Your task to perform on an android device: install app "Booking.com: Hotels and more" Image 0: 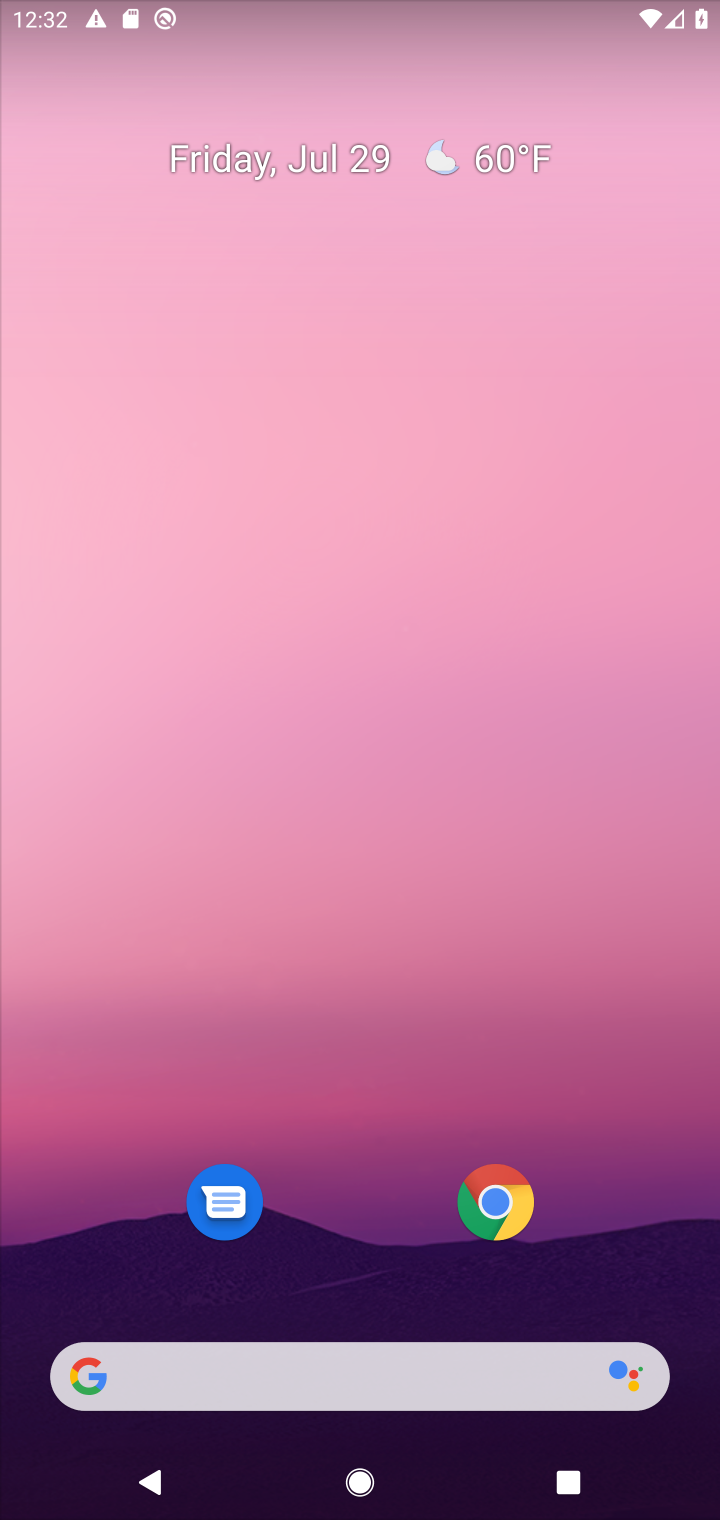
Step 0: click (346, 1378)
Your task to perform on an android device: install app "Booking.com: Hotels and more" Image 1: 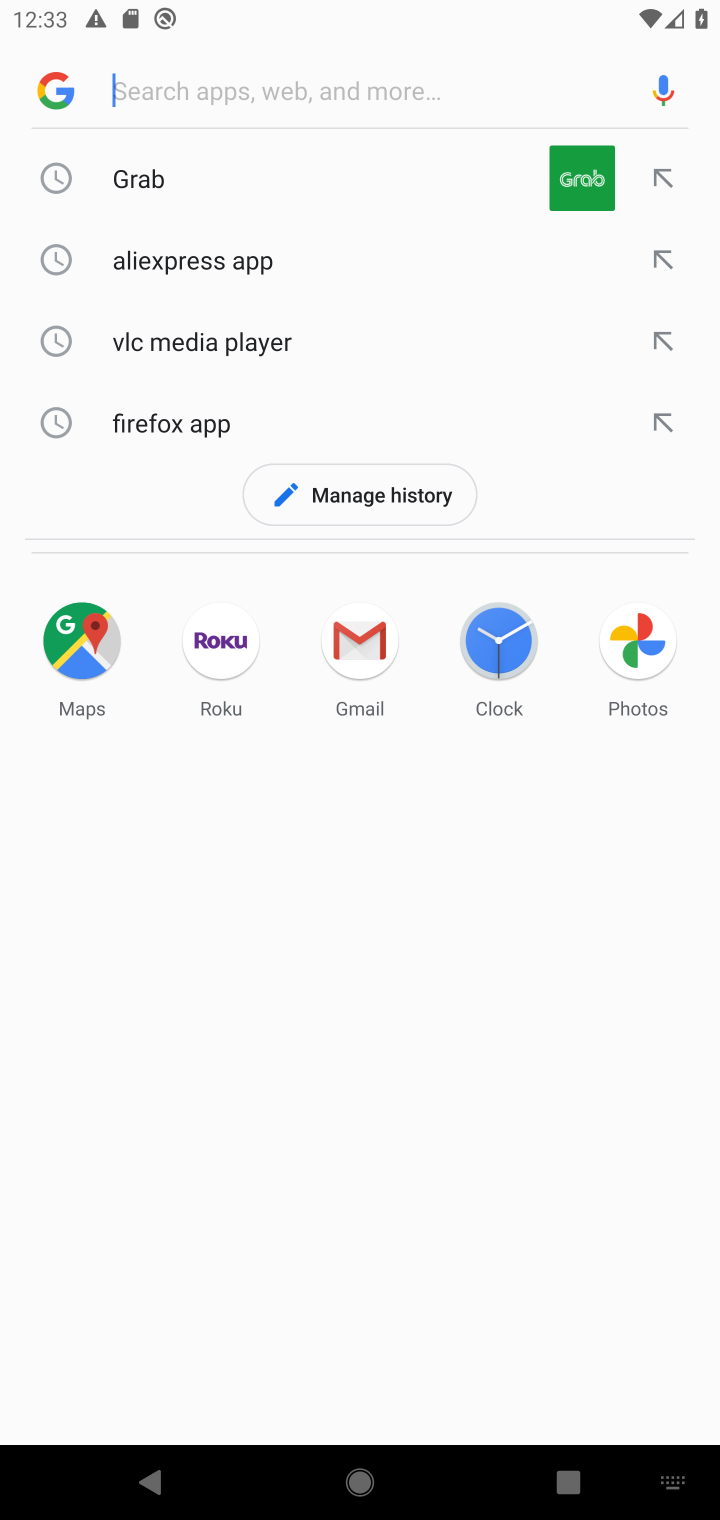
Step 1: type "booking"
Your task to perform on an android device: install app "Booking.com: Hotels and more" Image 2: 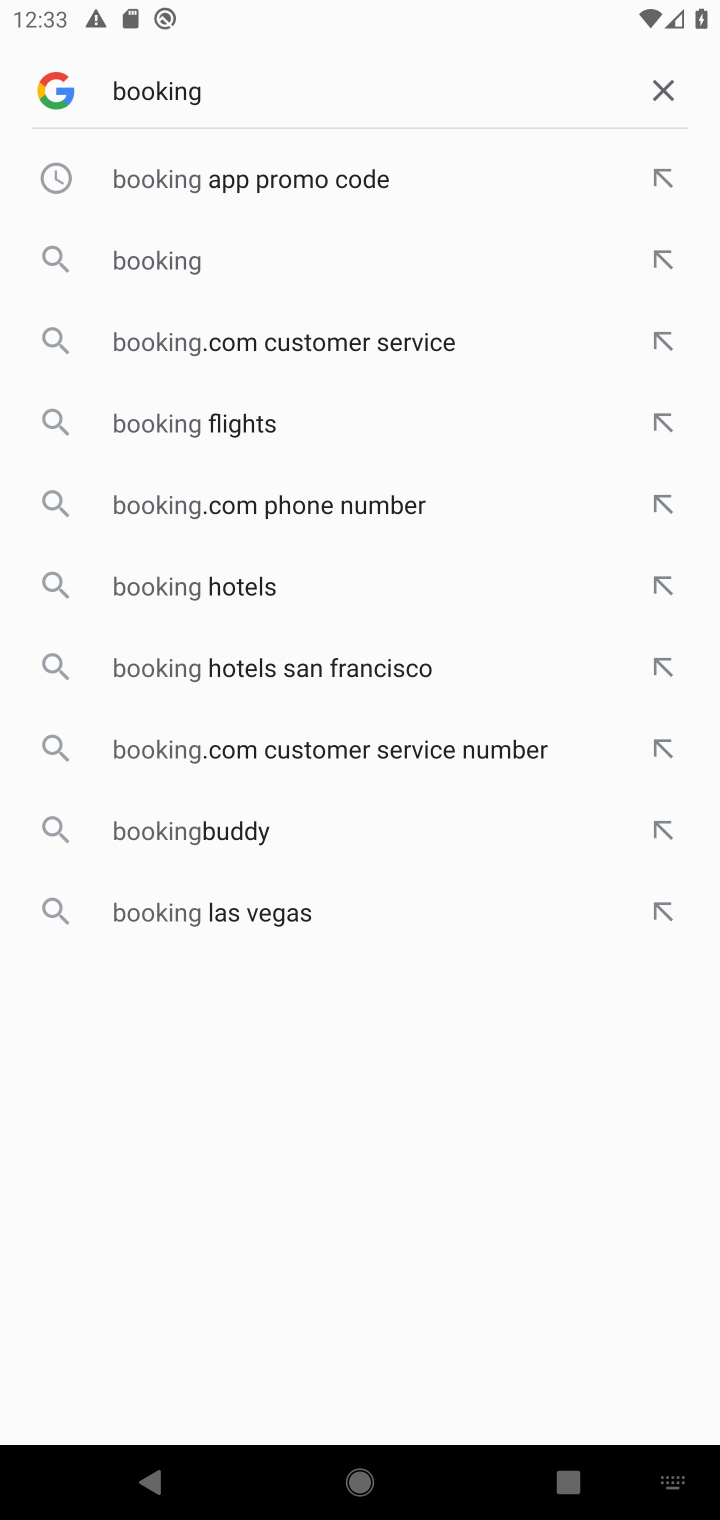
Step 2: click (477, 274)
Your task to perform on an android device: install app "Booking.com: Hotels and more" Image 3: 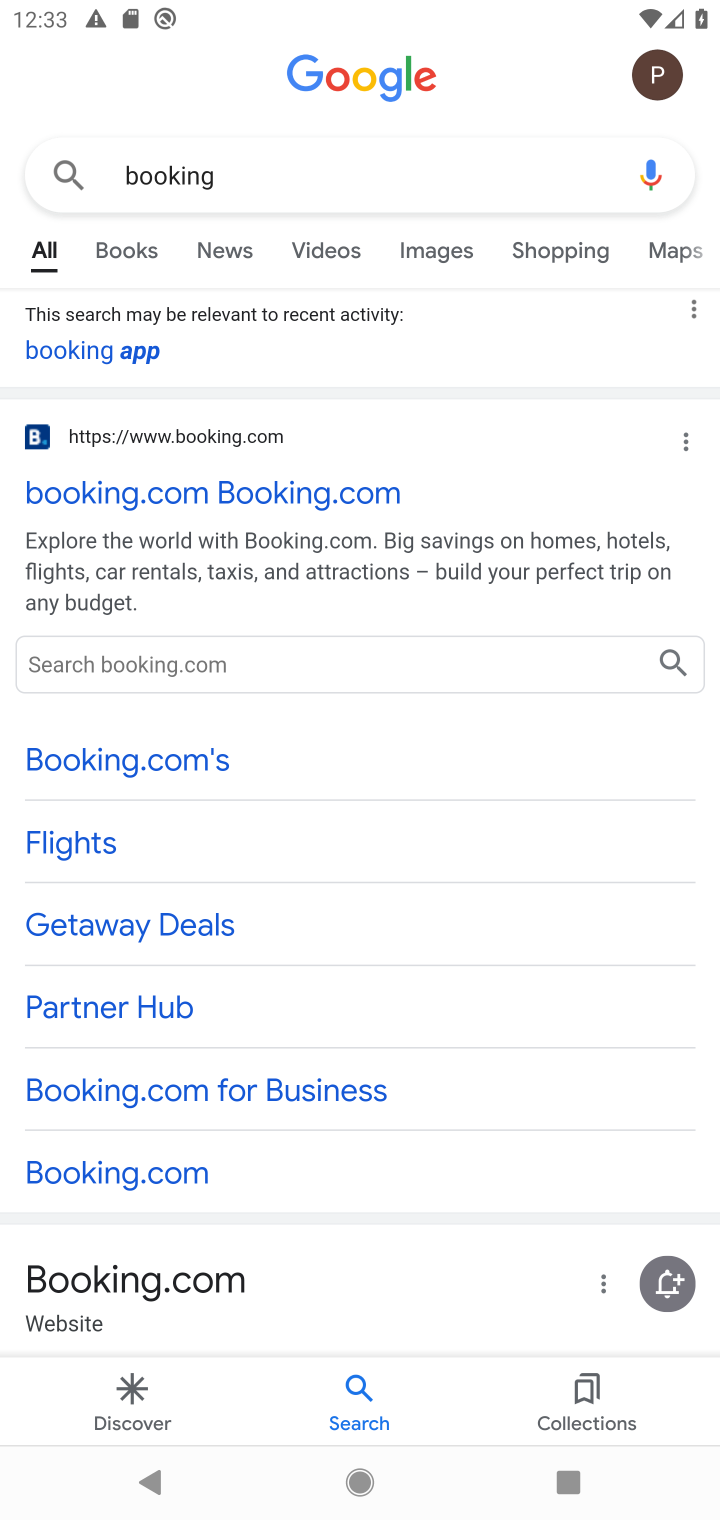
Step 3: task complete